Your task to perform on an android device: Go to Reddit.com Image 0: 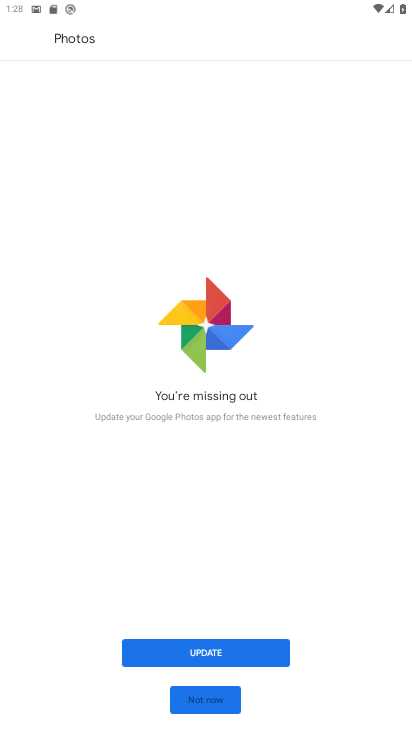
Step 0: press home button
Your task to perform on an android device: Go to Reddit.com Image 1: 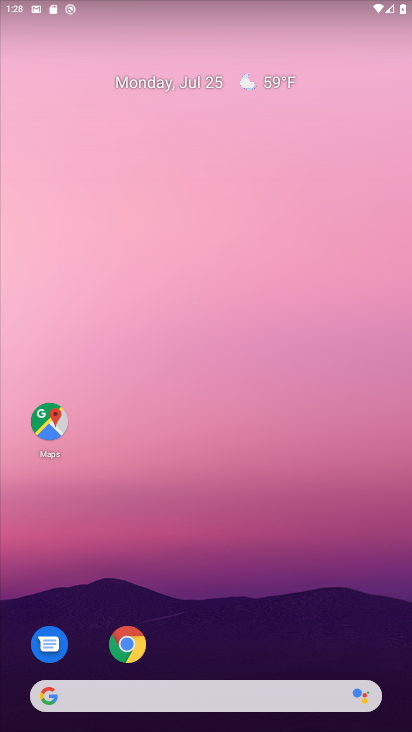
Step 1: click (120, 641)
Your task to perform on an android device: Go to Reddit.com Image 2: 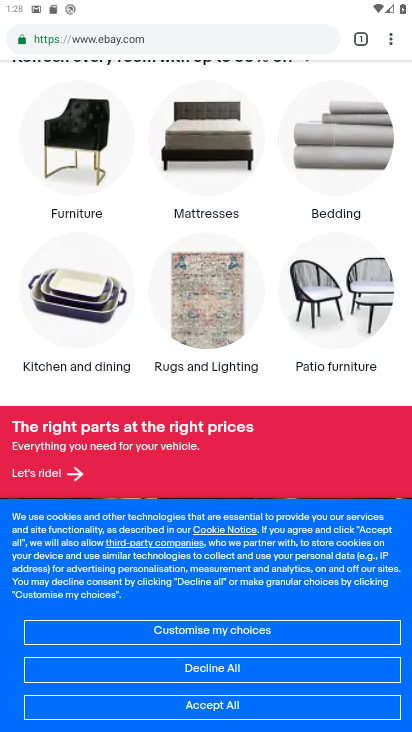
Step 2: click (280, 38)
Your task to perform on an android device: Go to Reddit.com Image 3: 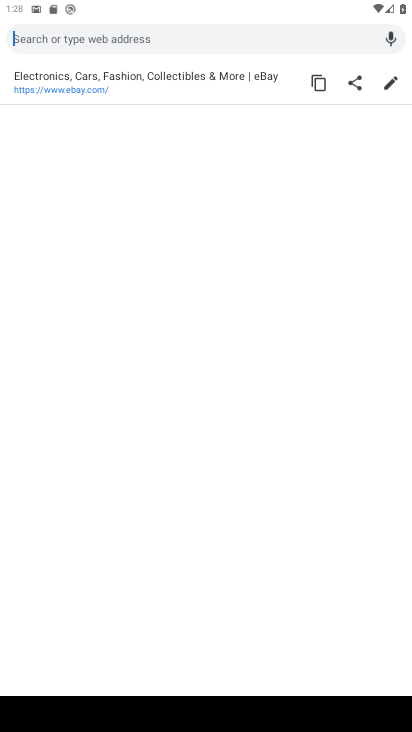
Step 3: type "Reddit.com"
Your task to perform on an android device: Go to Reddit.com Image 4: 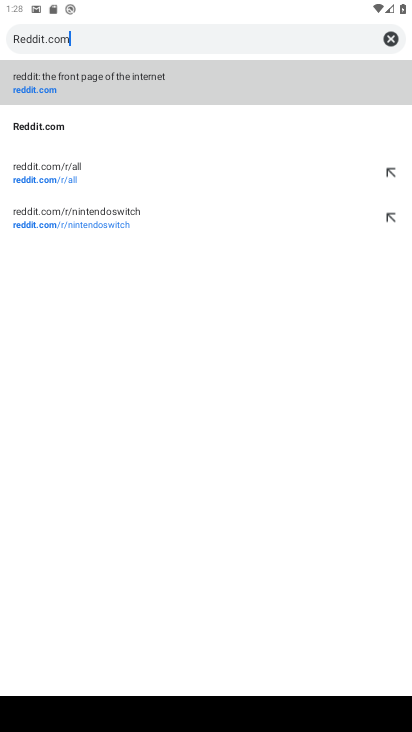
Step 4: click (51, 125)
Your task to perform on an android device: Go to Reddit.com Image 5: 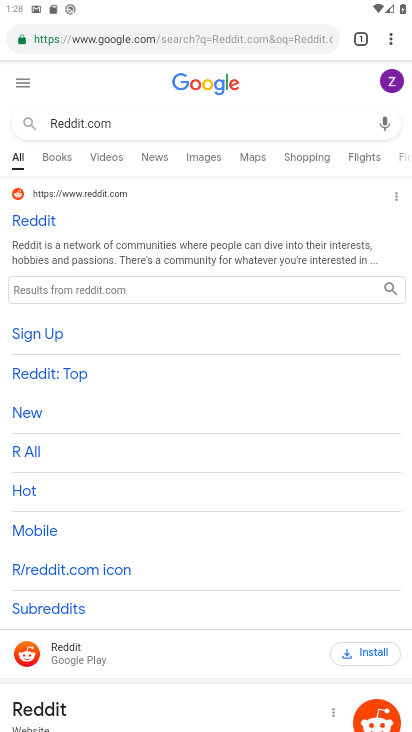
Step 5: task complete